Your task to perform on an android device: toggle javascript in the chrome app Image 0: 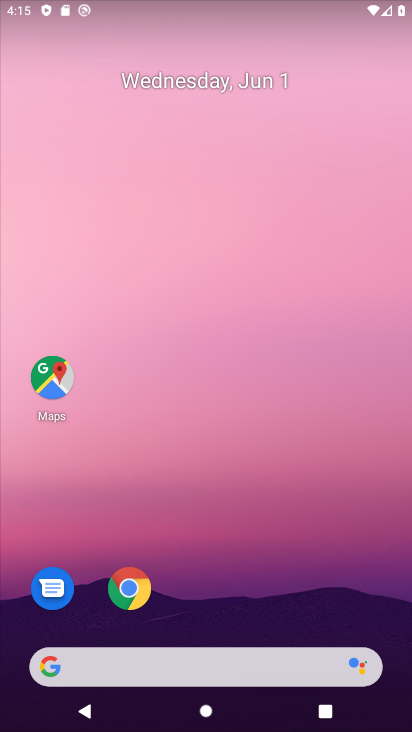
Step 0: click (131, 588)
Your task to perform on an android device: toggle javascript in the chrome app Image 1: 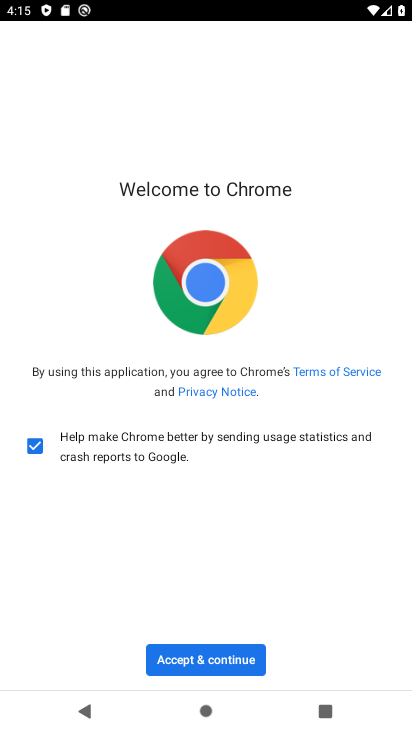
Step 1: click (227, 659)
Your task to perform on an android device: toggle javascript in the chrome app Image 2: 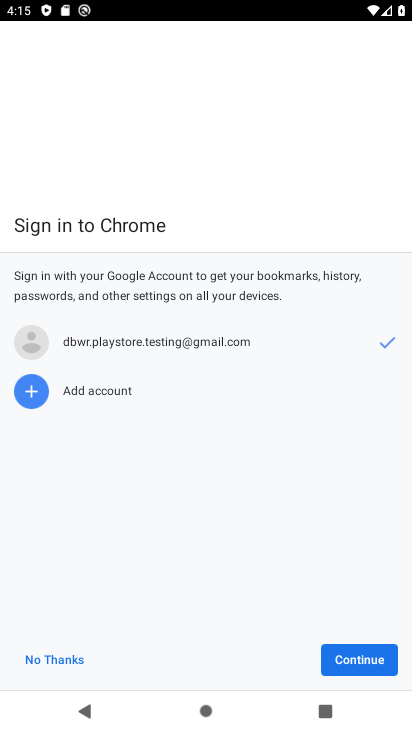
Step 2: click (358, 660)
Your task to perform on an android device: toggle javascript in the chrome app Image 3: 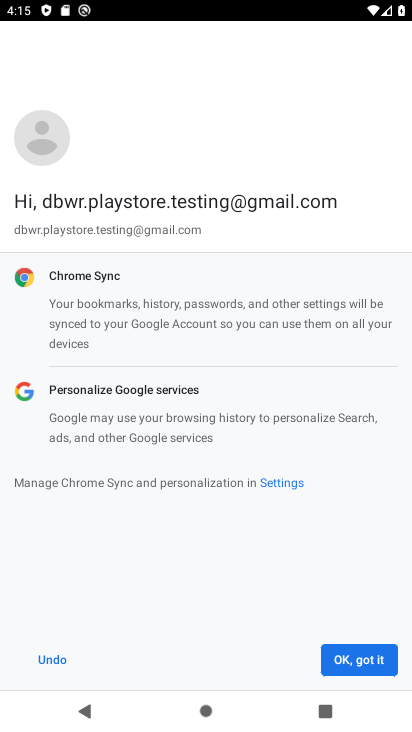
Step 3: click (358, 660)
Your task to perform on an android device: toggle javascript in the chrome app Image 4: 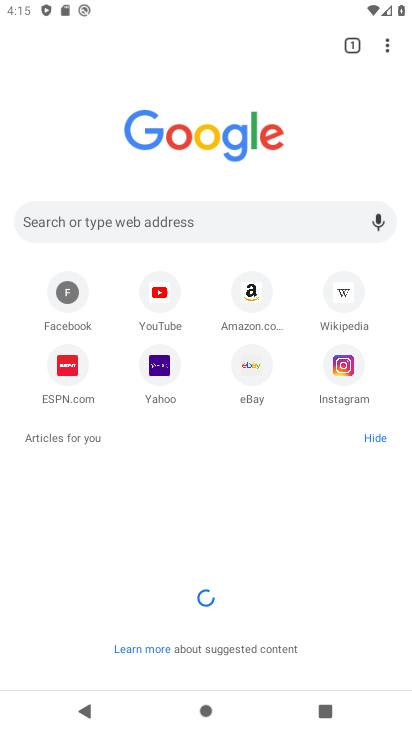
Step 4: click (388, 46)
Your task to perform on an android device: toggle javascript in the chrome app Image 5: 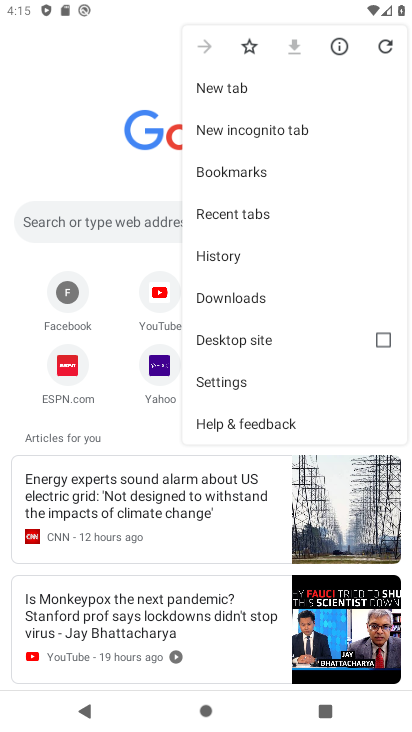
Step 5: click (235, 377)
Your task to perform on an android device: toggle javascript in the chrome app Image 6: 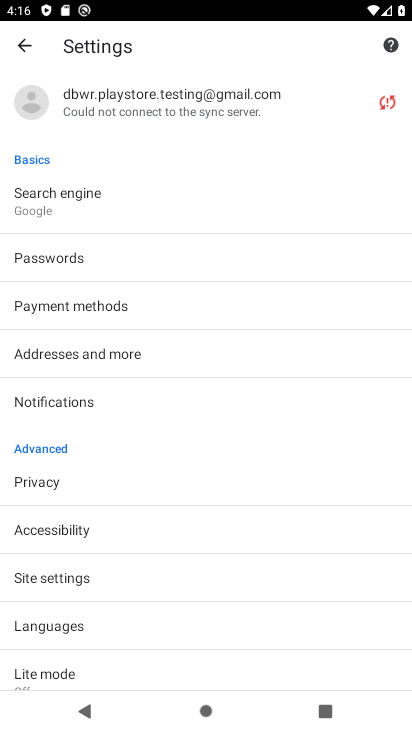
Step 6: click (60, 575)
Your task to perform on an android device: toggle javascript in the chrome app Image 7: 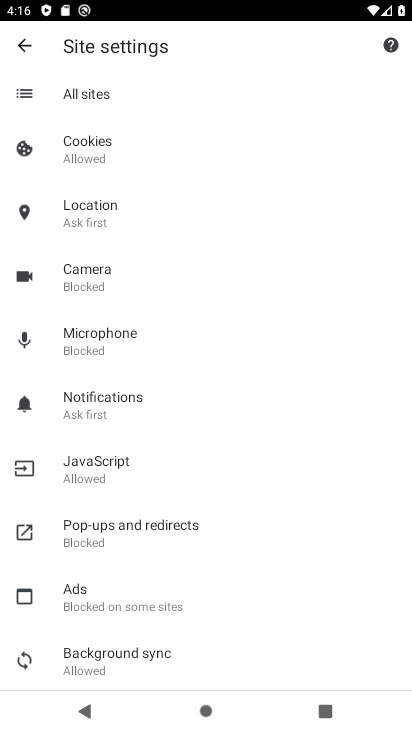
Step 7: click (114, 453)
Your task to perform on an android device: toggle javascript in the chrome app Image 8: 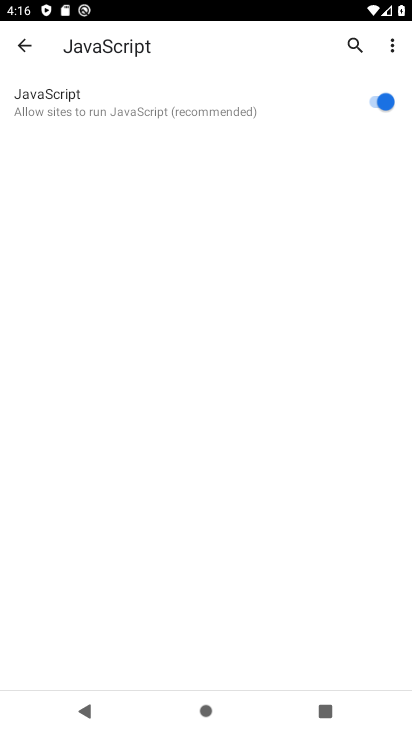
Step 8: click (378, 102)
Your task to perform on an android device: toggle javascript in the chrome app Image 9: 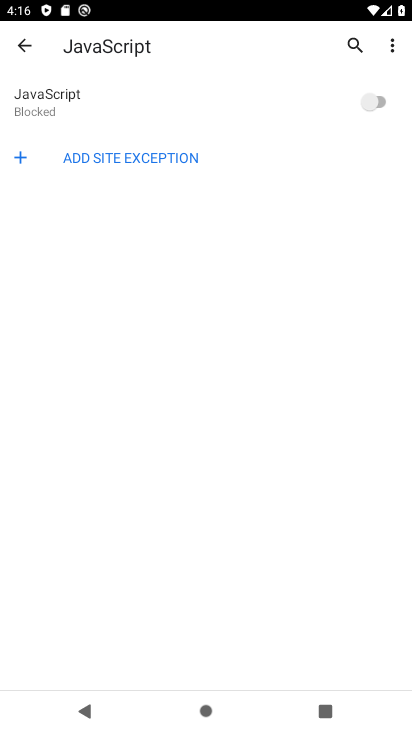
Step 9: task complete